Your task to perform on an android device: Check the news Image 0: 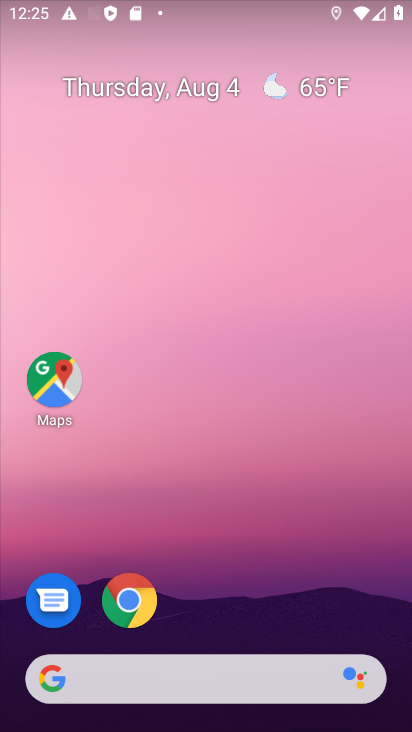
Step 0: click (224, 659)
Your task to perform on an android device: Check the news Image 1: 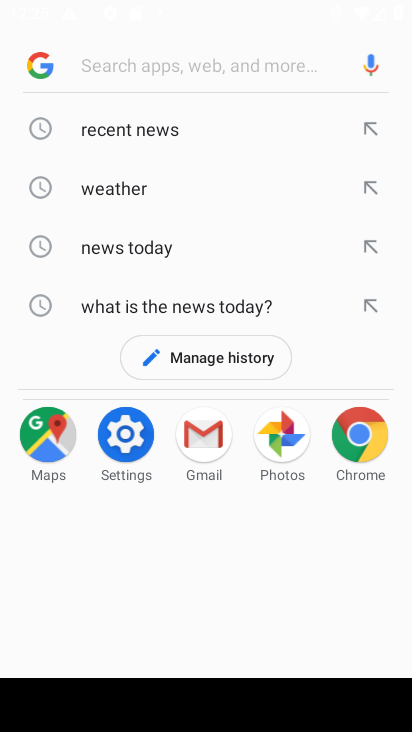
Step 1: click (94, 240)
Your task to perform on an android device: Check the news Image 2: 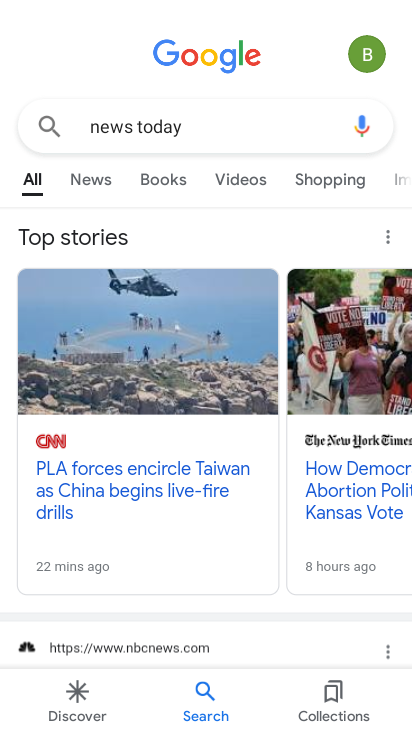
Step 2: click (87, 169)
Your task to perform on an android device: Check the news Image 3: 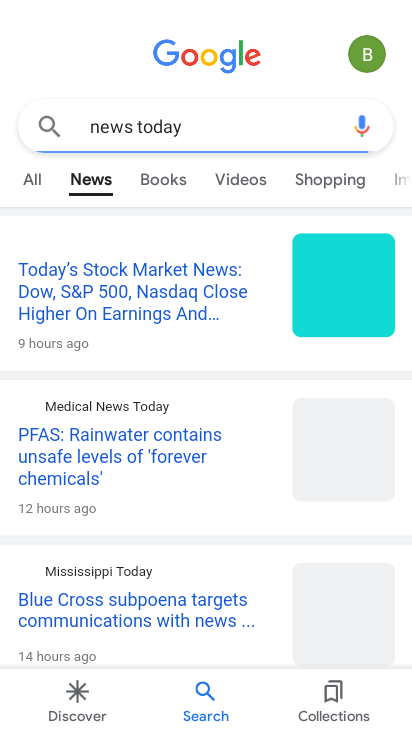
Step 3: task complete